Your task to perform on an android device: How do I get to the nearest T-Mobile Store? Image 0: 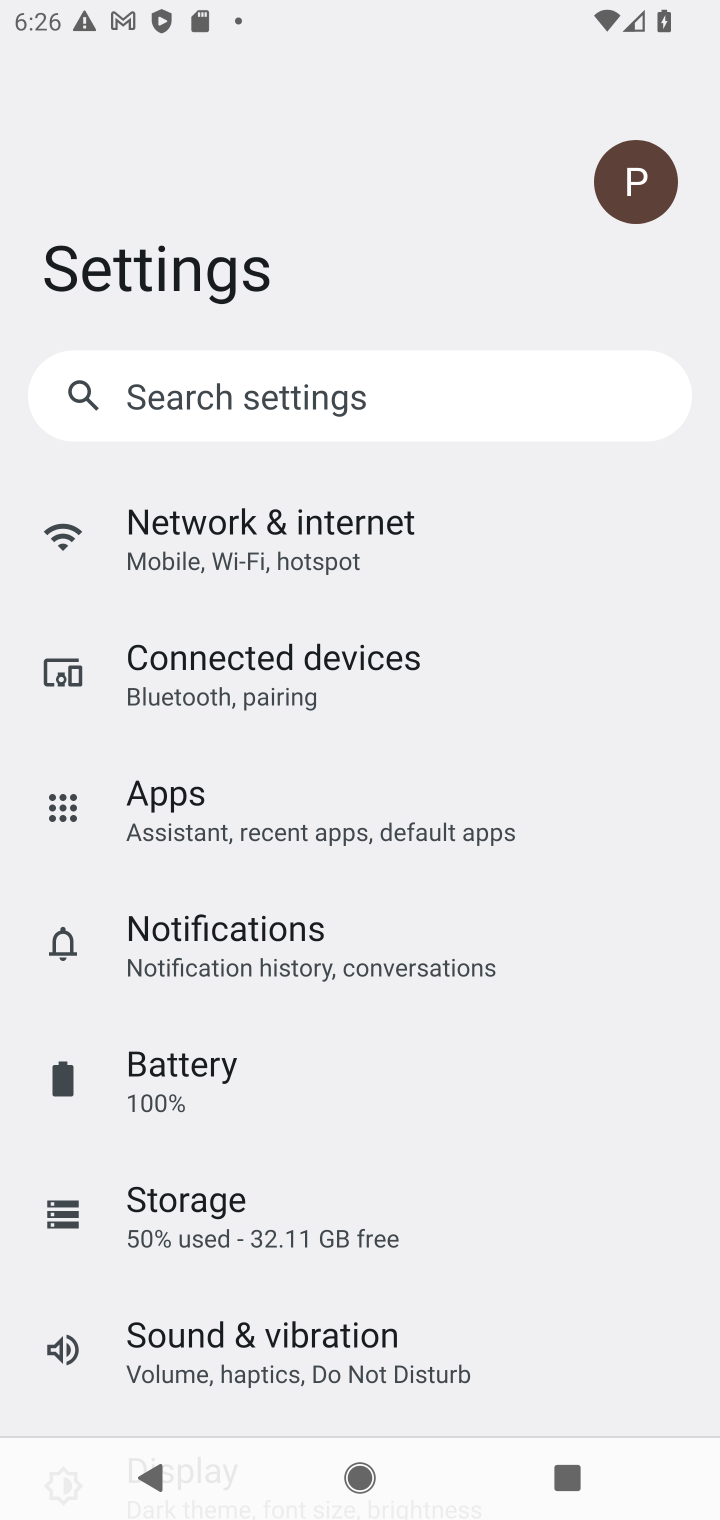
Step 0: press home button
Your task to perform on an android device: How do I get to the nearest T-Mobile Store? Image 1: 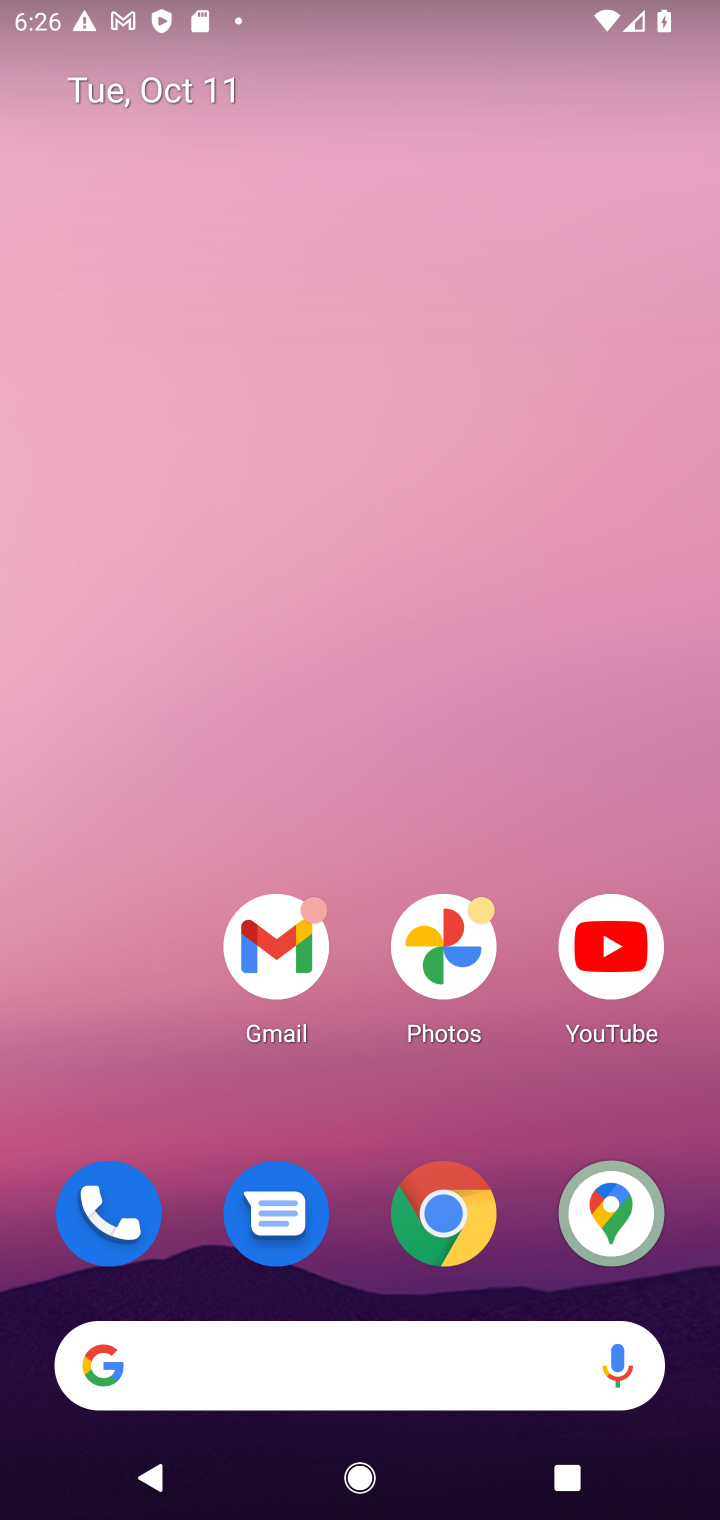
Step 1: drag from (291, 1301) to (421, 278)
Your task to perform on an android device: How do I get to the nearest T-Mobile Store? Image 2: 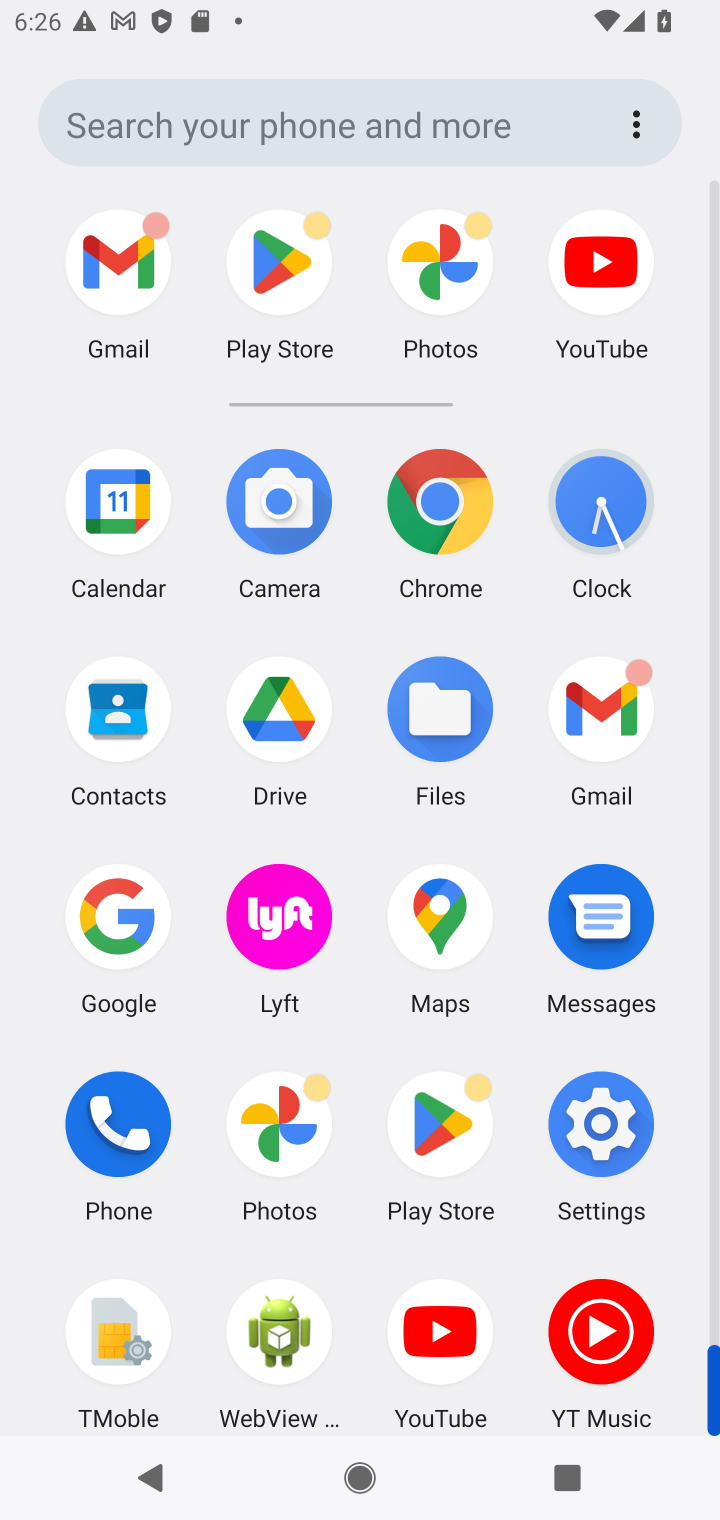
Step 2: click (132, 936)
Your task to perform on an android device: How do I get to the nearest T-Mobile Store? Image 3: 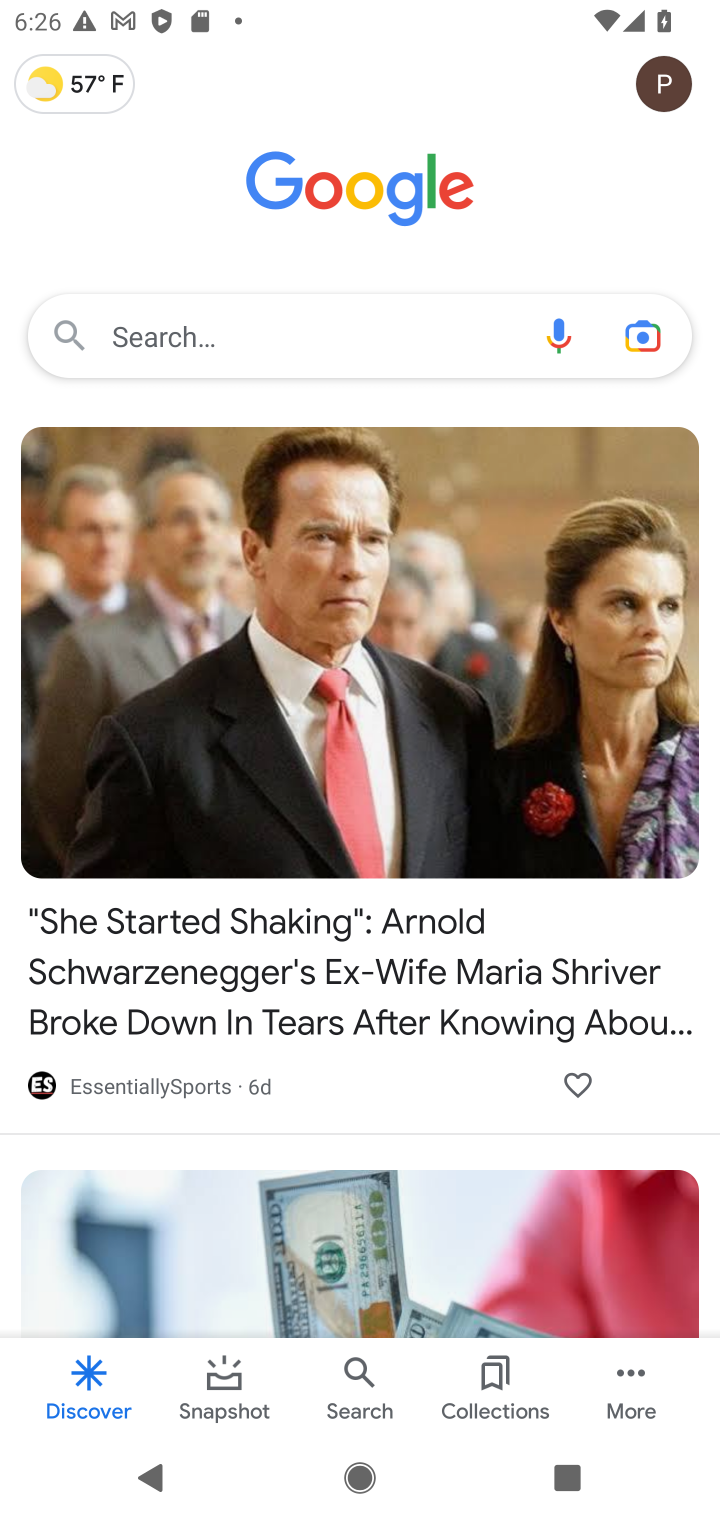
Step 3: click (158, 336)
Your task to perform on an android device: How do I get to the nearest T-Mobile Store? Image 4: 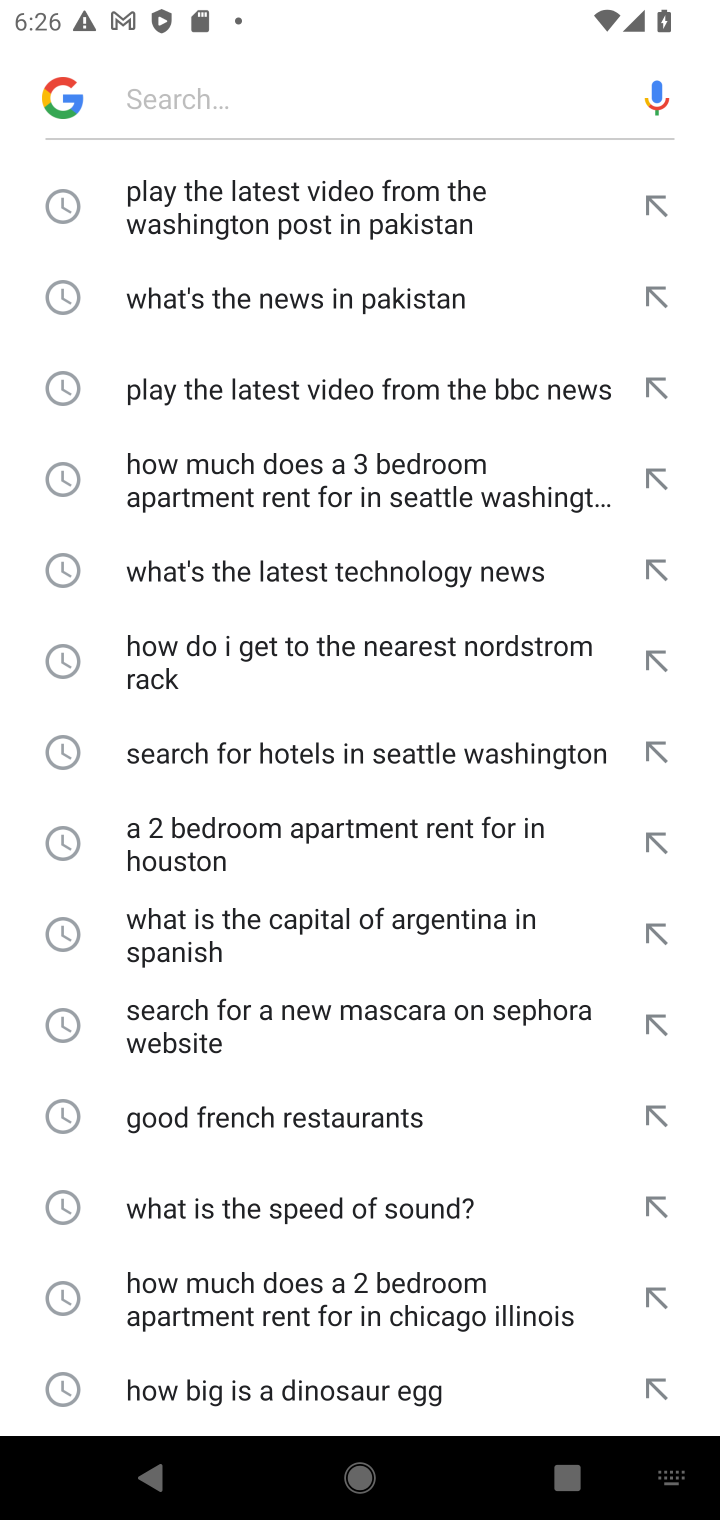
Step 4: type "How do I get to the nearest T-Mobile Store?"
Your task to perform on an android device: How do I get to the nearest T-Mobile Store? Image 5: 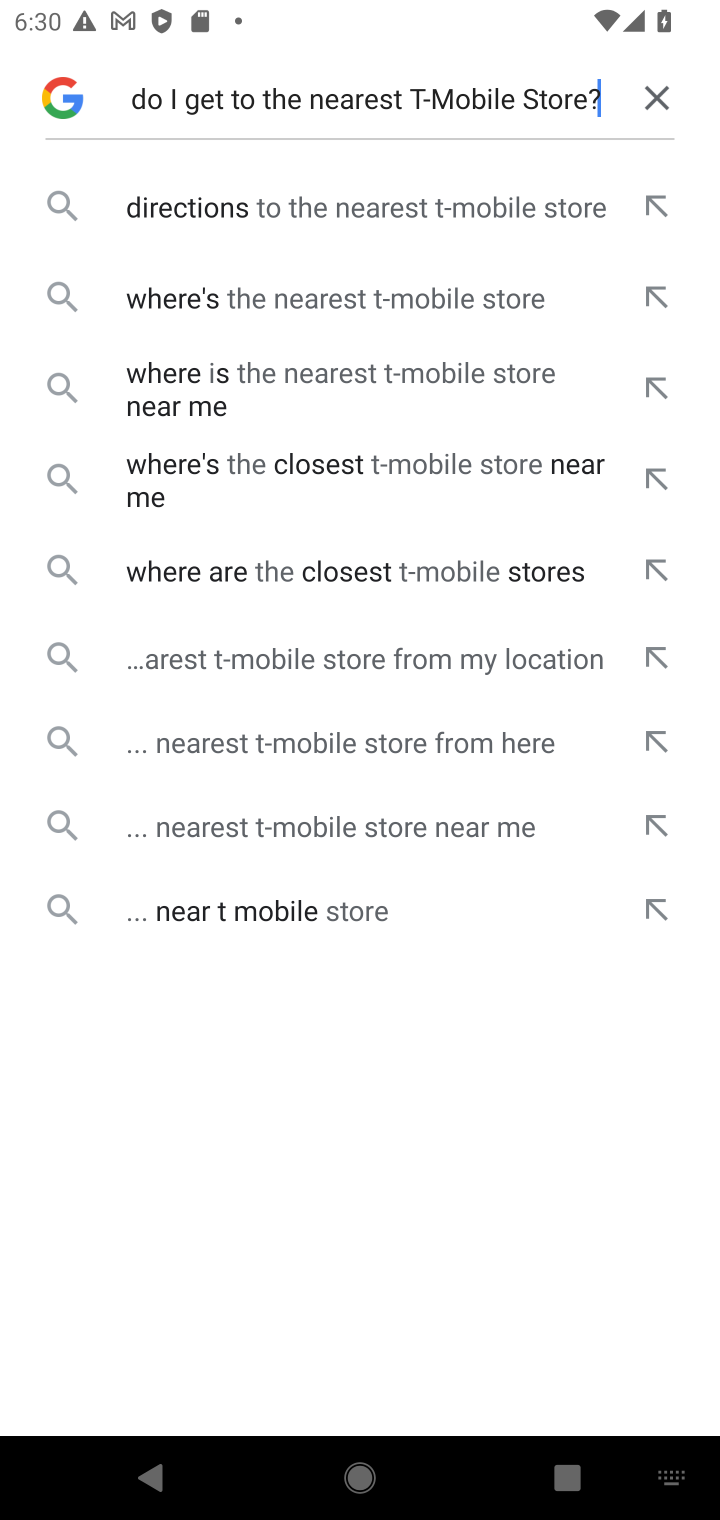
Step 5: click (507, 219)
Your task to perform on an android device: How do I get to the nearest T-Mobile Store? Image 6: 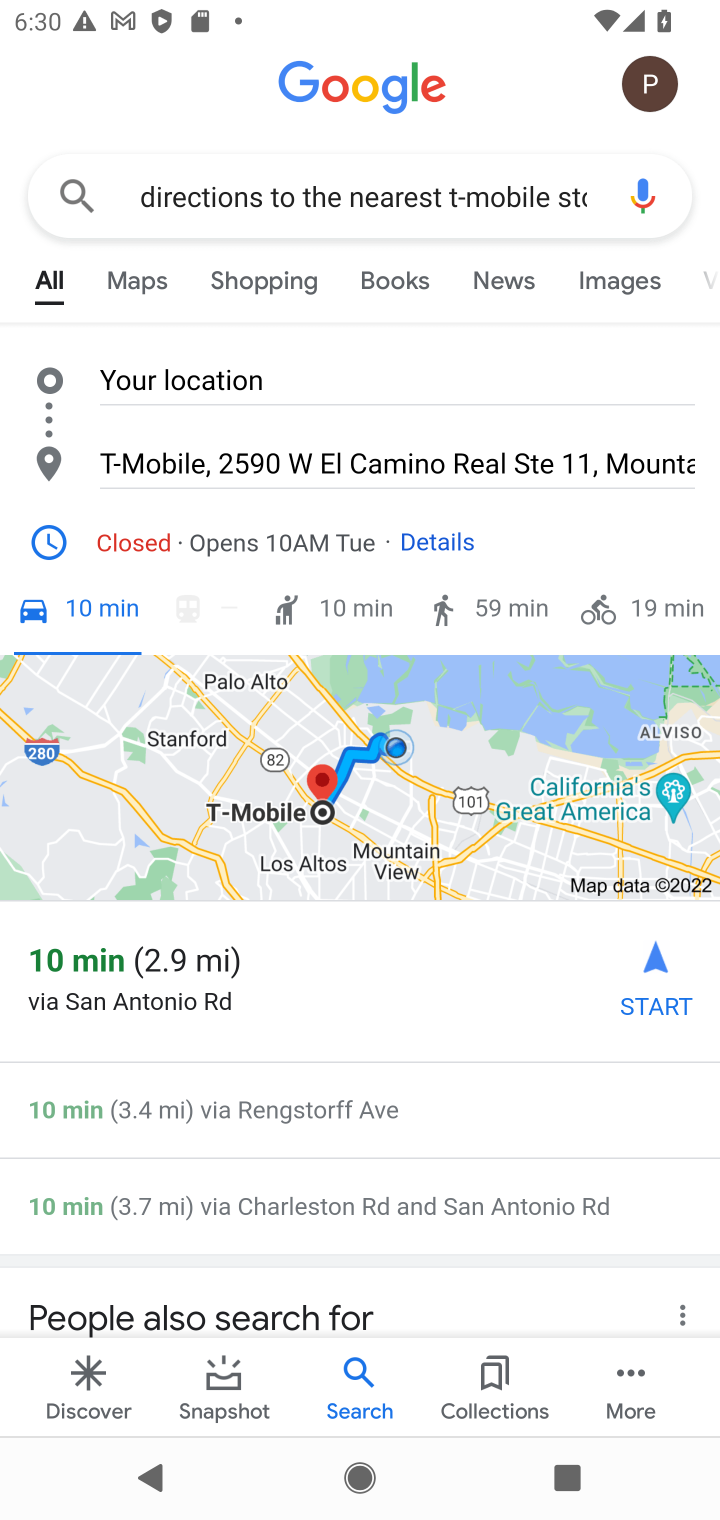
Step 6: task complete